Your task to perform on an android device: add a contact Image 0: 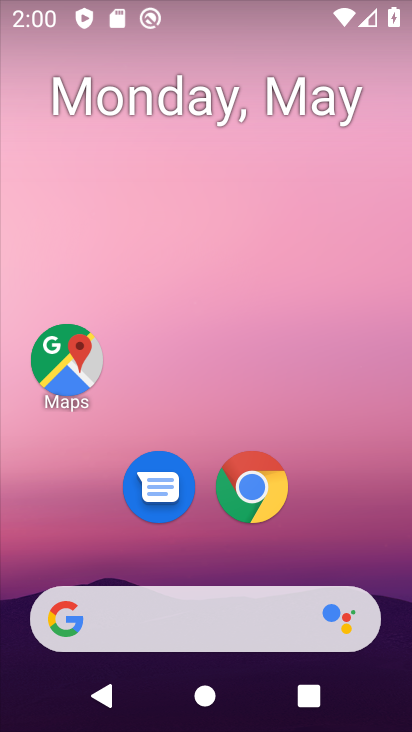
Step 0: drag from (339, 511) to (311, 94)
Your task to perform on an android device: add a contact Image 1: 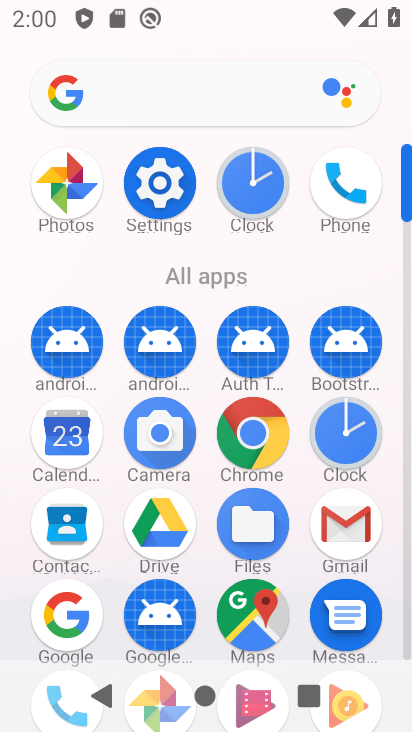
Step 1: click (71, 526)
Your task to perform on an android device: add a contact Image 2: 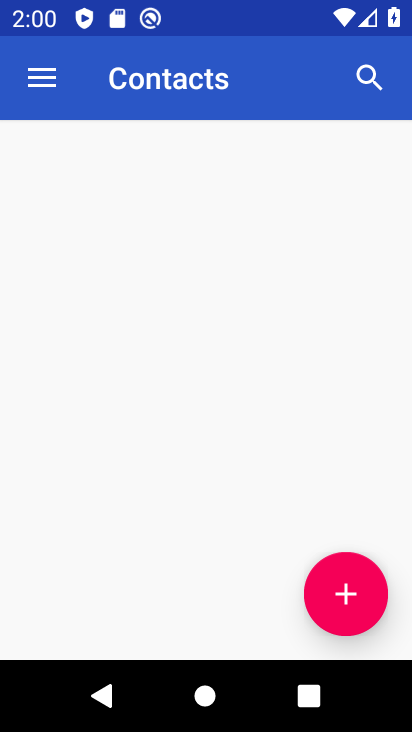
Step 2: click (353, 598)
Your task to perform on an android device: add a contact Image 3: 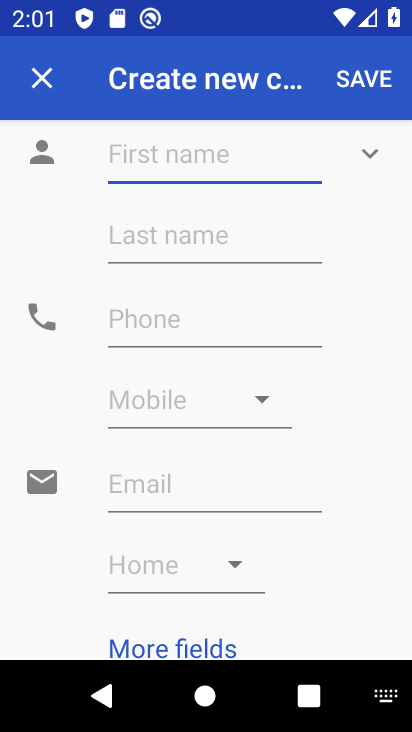
Step 3: type "vjvjvhv"
Your task to perform on an android device: add a contact Image 4: 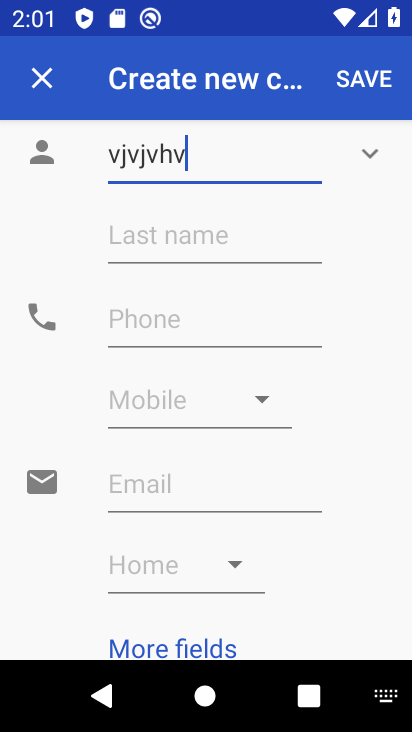
Step 4: click (182, 325)
Your task to perform on an android device: add a contact Image 5: 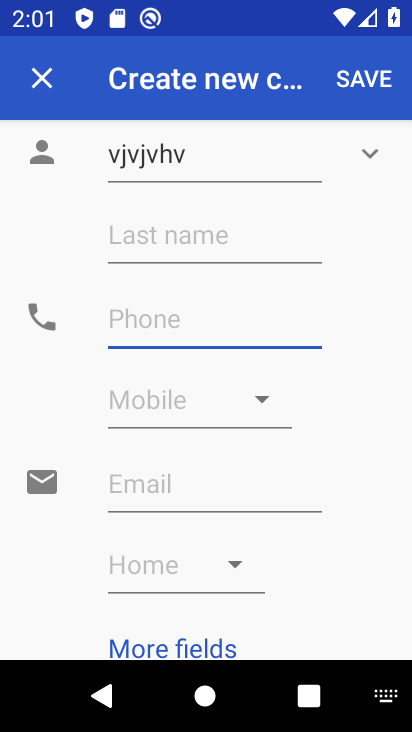
Step 5: type "998888"
Your task to perform on an android device: add a contact Image 6: 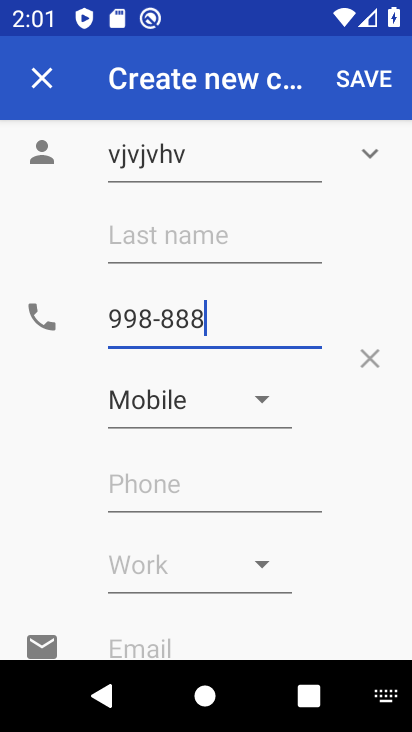
Step 6: click (367, 69)
Your task to perform on an android device: add a contact Image 7: 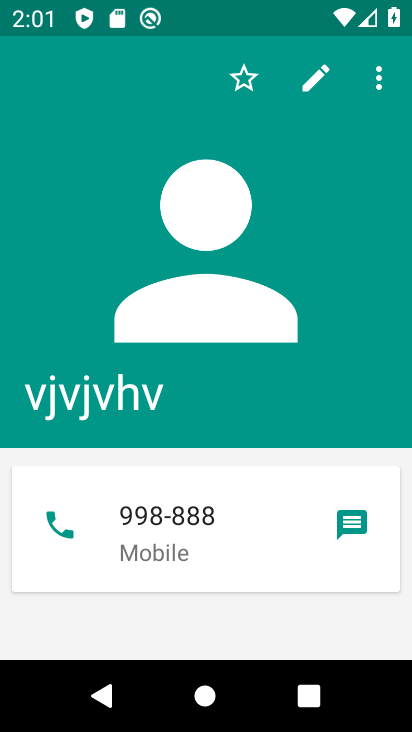
Step 7: task complete